Your task to perform on an android device: open the mobile data screen to see how much data has been used Image 0: 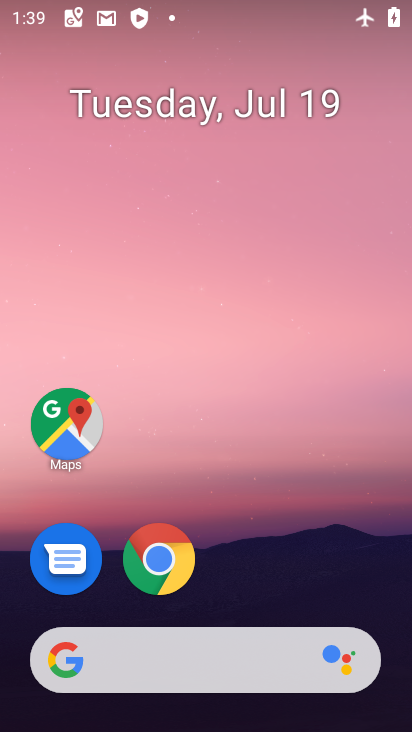
Step 0: drag from (248, 645) to (261, 7)
Your task to perform on an android device: open the mobile data screen to see how much data has been used Image 1: 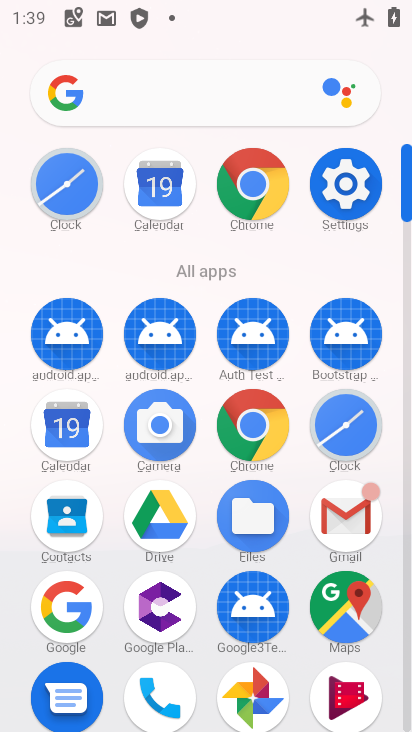
Step 1: click (353, 198)
Your task to perform on an android device: open the mobile data screen to see how much data has been used Image 2: 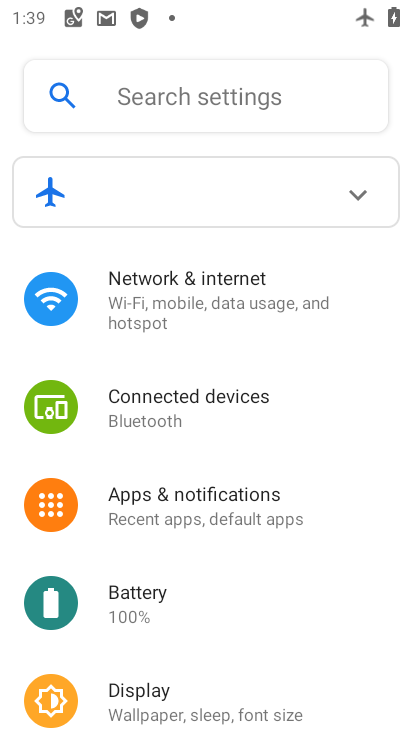
Step 2: click (182, 307)
Your task to perform on an android device: open the mobile data screen to see how much data has been used Image 3: 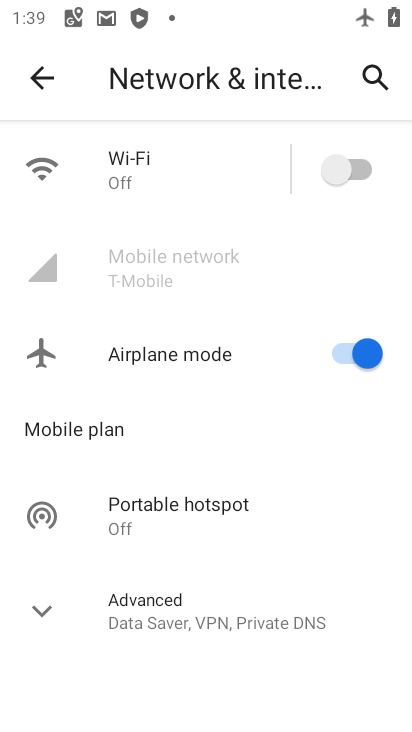
Step 3: click (347, 350)
Your task to perform on an android device: open the mobile data screen to see how much data has been used Image 4: 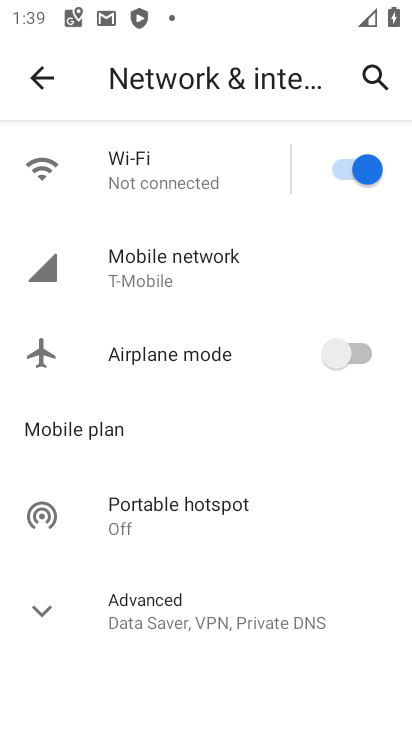
Step 4: click (128, 274)
Your task to perform on an android device: open the mobile data screen to see how much data has been used Image 5: 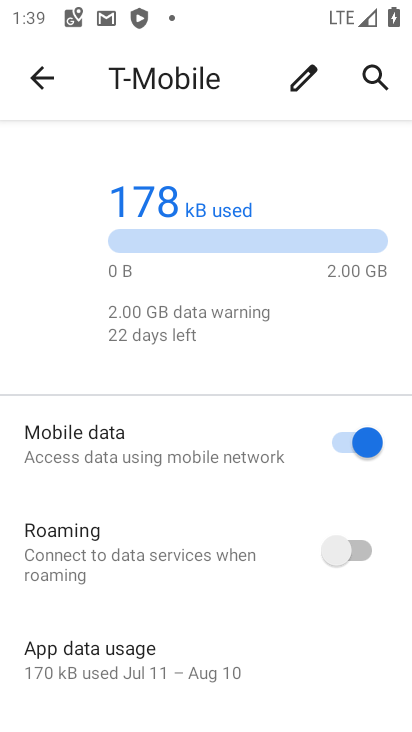
Step 5: task complete